Your task to perform on an android device: Open accessibility settings Image 0: 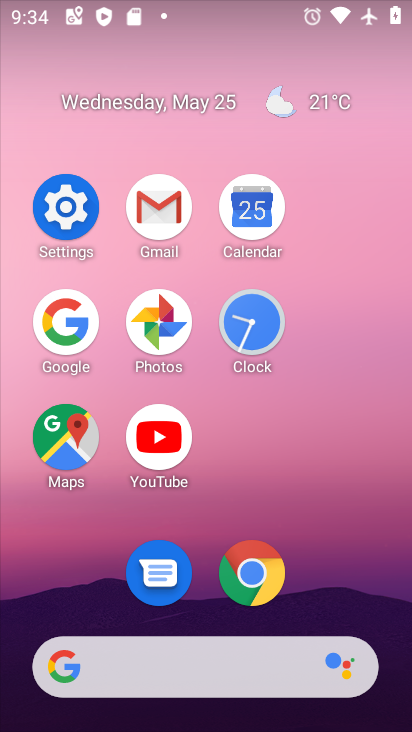
Step 0: click (66, 226)
Your task to perform on an android device: Open accessibility settings Image 1: 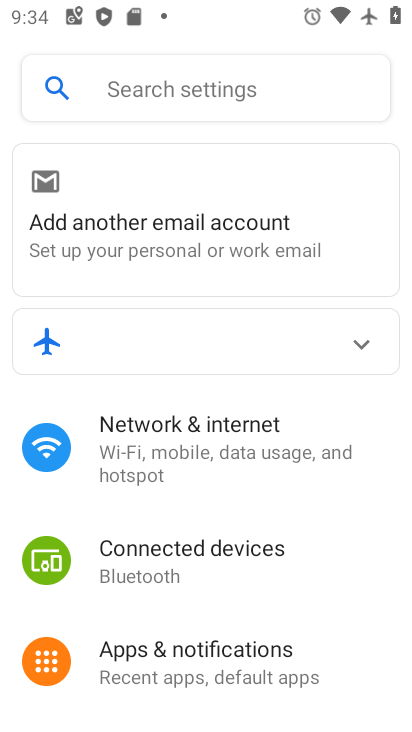
Step 1: drag from (292, 549) to (303, 136)
Your task to perform on an android device: Open accessibility settings Image 2: 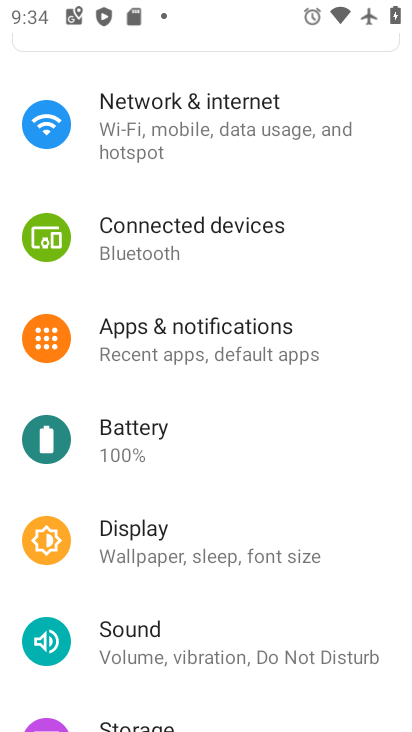
Step 2: drag from (261, 570) to (264, 155)
Your task to perform on an android device: Open accessibility settings Image 3: 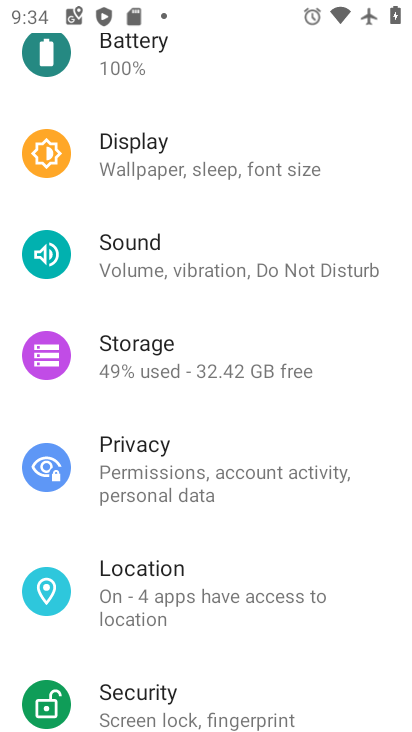
Step 3: drag from (238, 629) to (261, 158)
Your task to perform on an android device: Open accessibility settings Image 4: 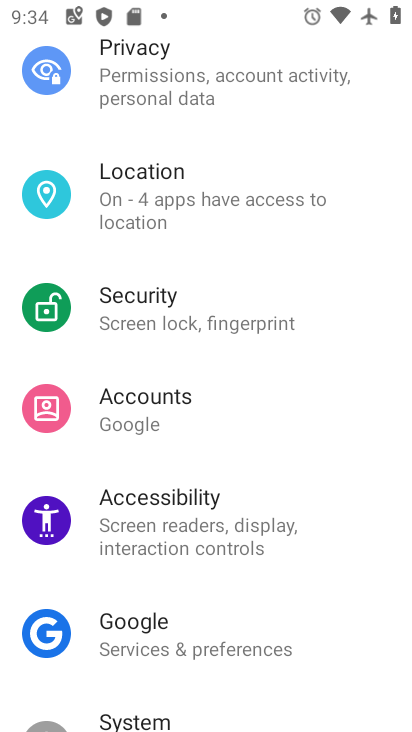
Step 4: click (249, 506)
Your task to perform on an android device: Open accessibility settings Image 5: 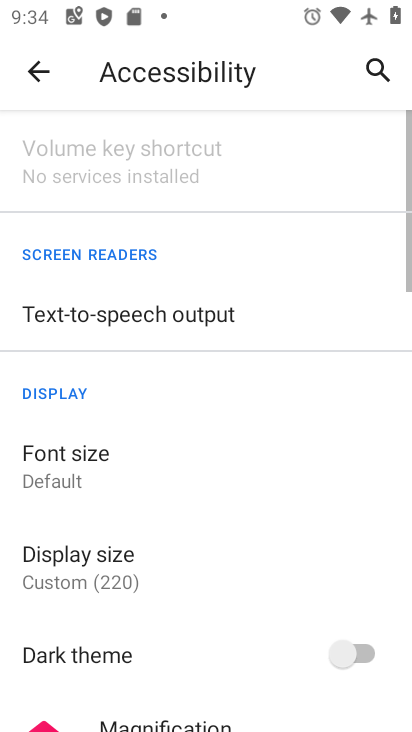
Step 5: task complete